Your task to perform on an android device: turn notification dots off Image 0: 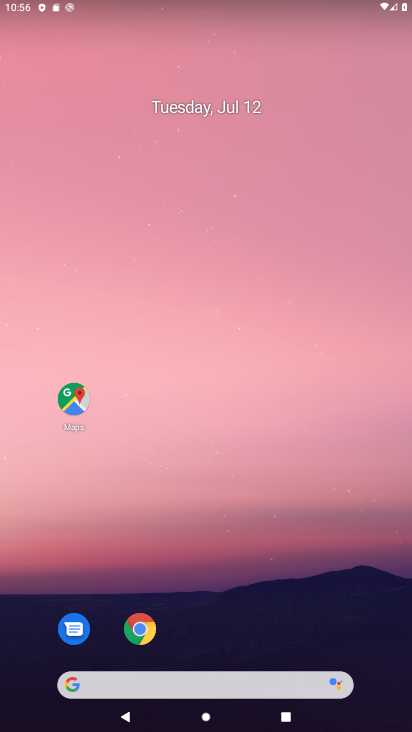
Step 0: press home button
Your task to perform on an android device: turn notification dots off Image 1: 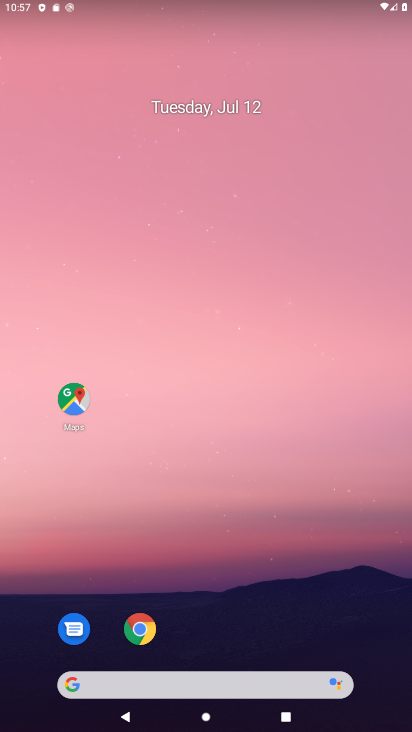
Step 1: drag from (256, 576) to (168, 239)
Your task to perform on an android device: turn notification dots off Image 2: 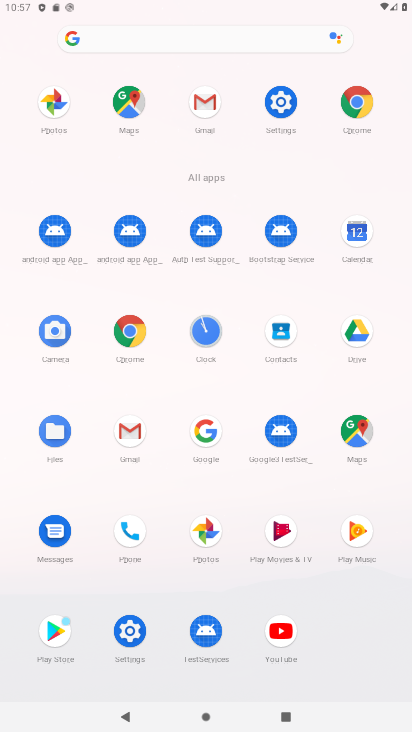
Step 2: click (279, 99)
Your task to perform on an android device: turn notification dots off Image 3: 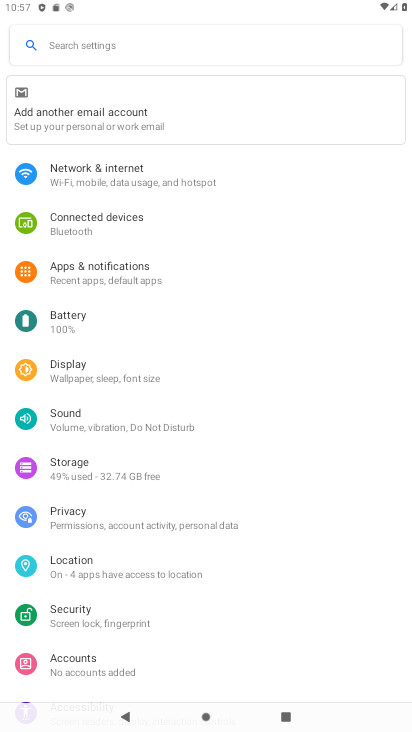
Step 3: click (112, 267)
Your task to perform on an android device: turn notification dots off Image 4: 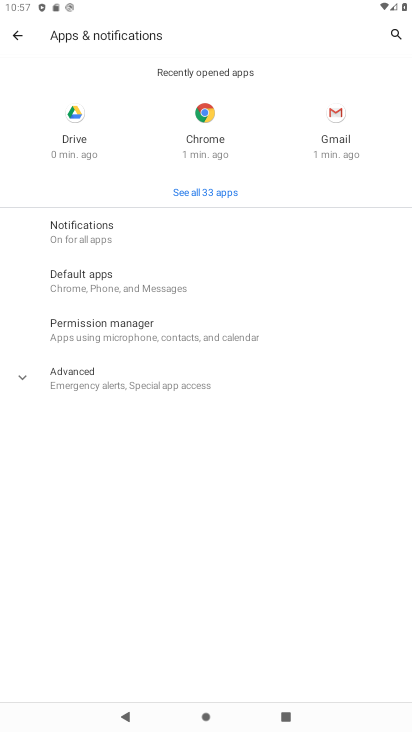
Step 4: click (75, 224)
Your task to perform on an android device: turn notification dots off Image 5: 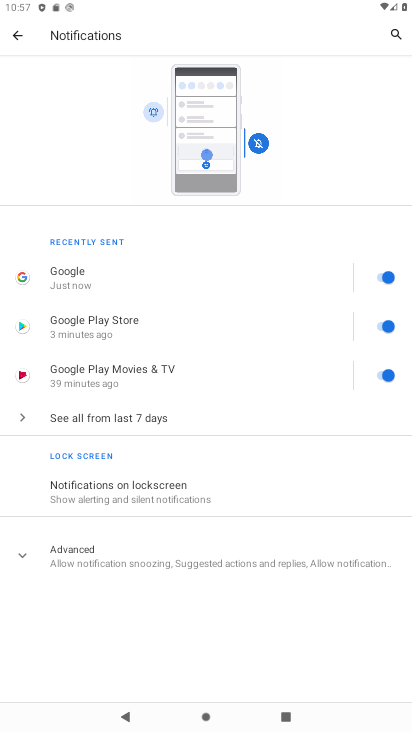
Step 5: click (27, 558)
Your task to perform on an android device: turn notification dots off Image 6: 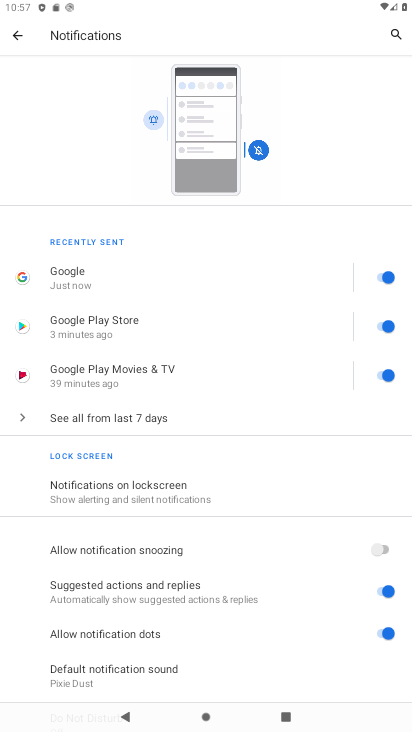
Step 6: click (394, 633)
Your task to perform on an android device: turn notification dots off Image 7: 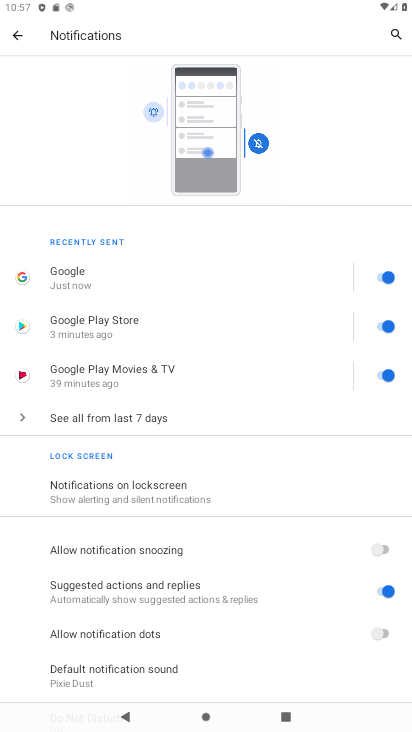
Step 7: task complete